Your task to perform on an android device: Open the stopwatch Image 0: 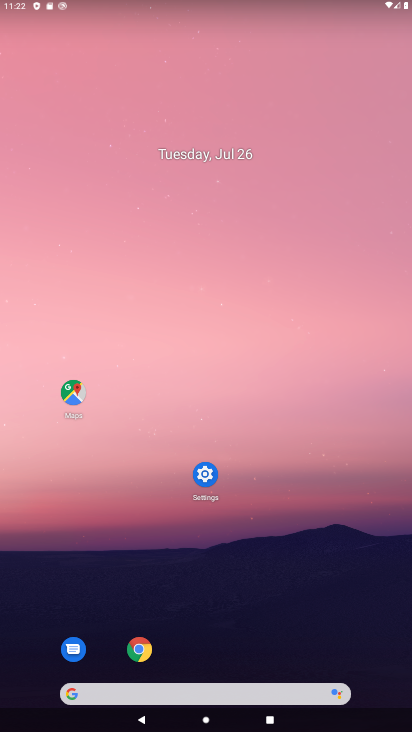
Step 0: drag from (254, 373) to (282, 46)
Your task to perform on an android device: Open the stopwatch Image 1: 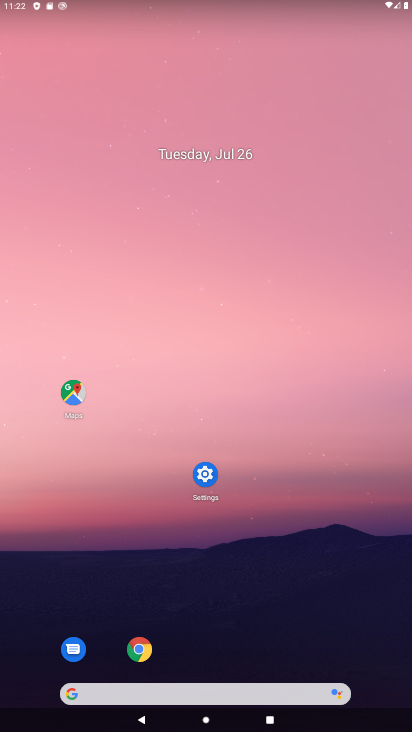
Step 1: drag from (227, 513) to (299, 19)
Your task to perform on an android device: Open the stopwatch Image 2: 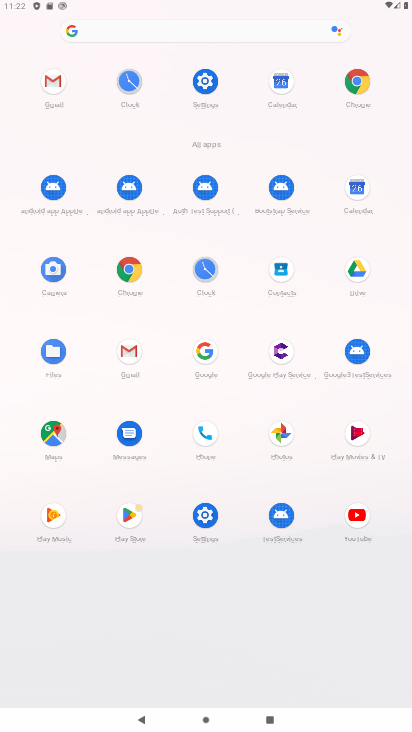
Step 2: click (211, 269)
Your task to perform on an android device: Open the stopwatch Image 3: 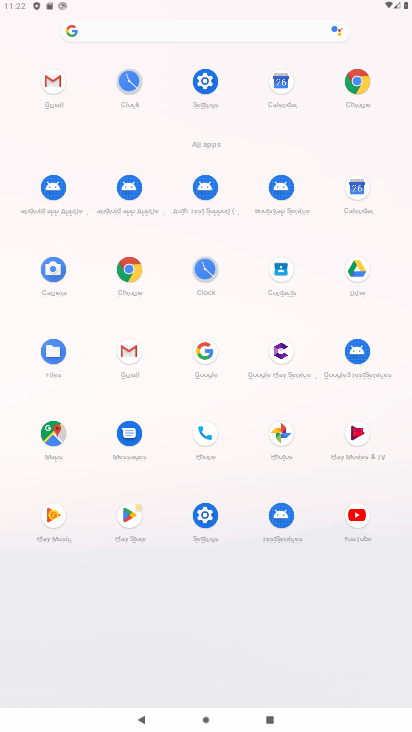
Step 3: click (212, 268)
Your task to perform on an android device: Open the stopwatch Image 4: 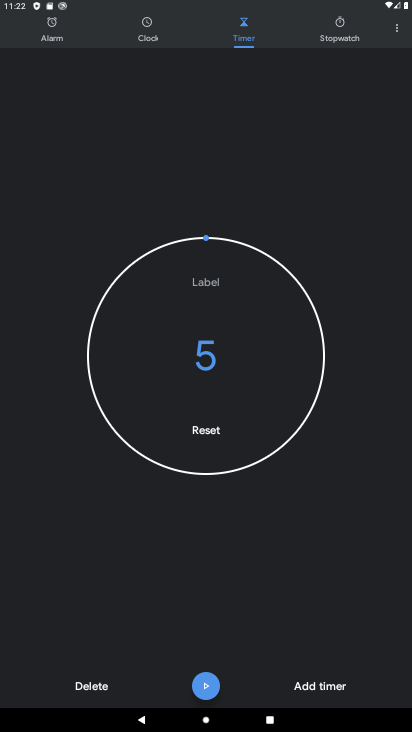
Step 4: click (349, 30)
Your task to perform on an android device: Open the stopwatch Image 5: 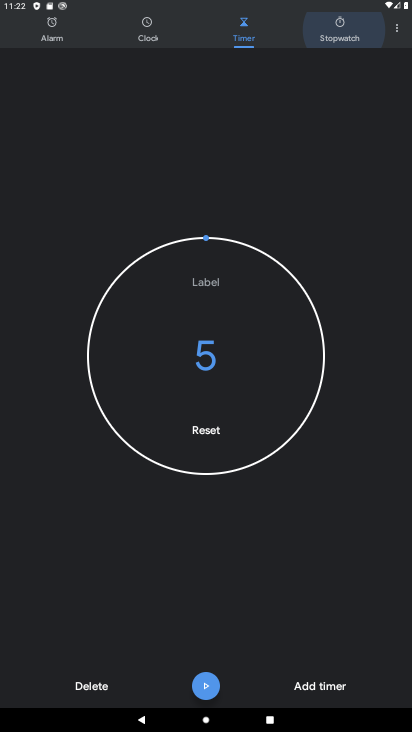
Step 5: click (348, 29)
Your task to perform on an android device: Open the stopwatch Image 6: 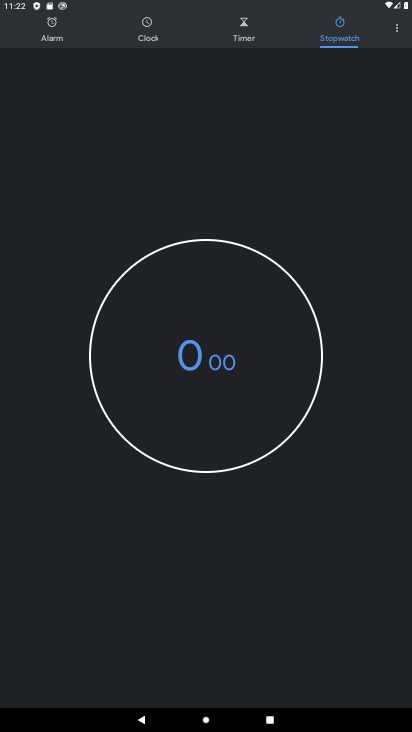
Step 6: click (345, 30)
Your task to perform on an android device: Open the stopwatch Image 7: 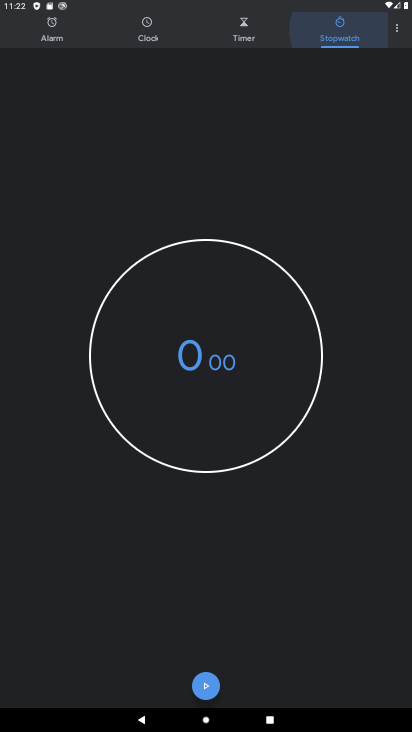
Step 7: click (338, 37)
Your task to perform on an android device: Open the stopwatch Image 8: 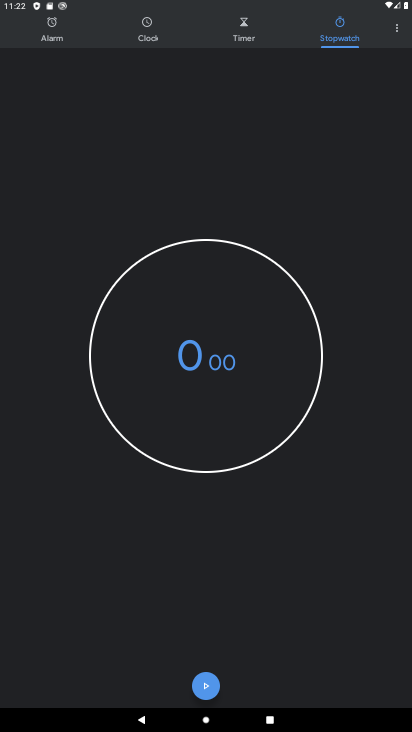
Step 8: click (198, 699)
Your task to perform on an android device: Open the stopwatch Image 9: 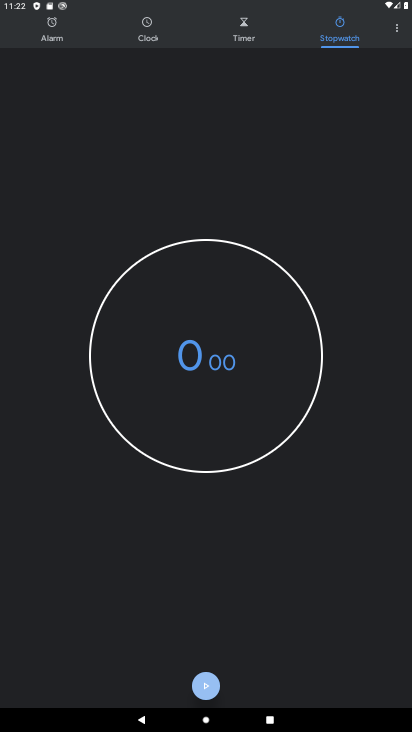
Step 9: click (199, 691)
Your task to perform on an android device: Open the stopwatch Image 10: 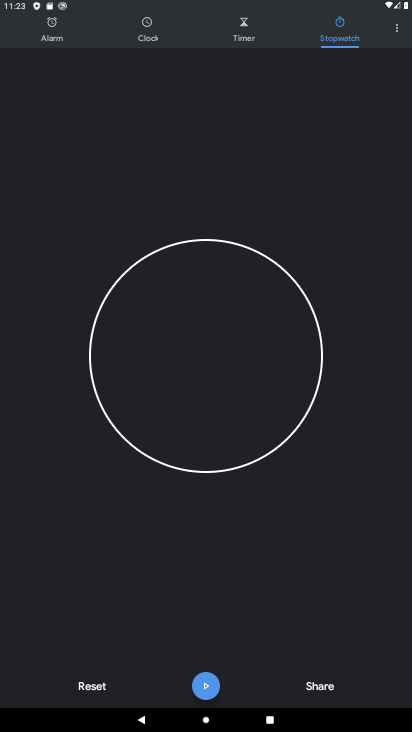
Step 10: click (202, 676)
Your task to perform on an android device: Open the stopwatch Image 11: 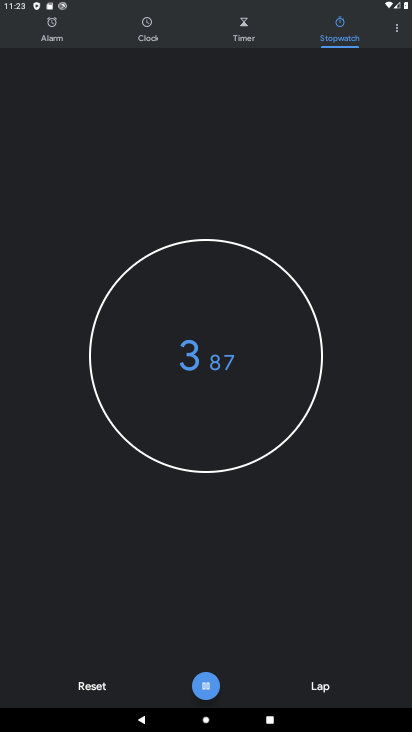
Step 11: click (201, 688)
Your task to perform on an android device: Open the stopwatch Image 12: 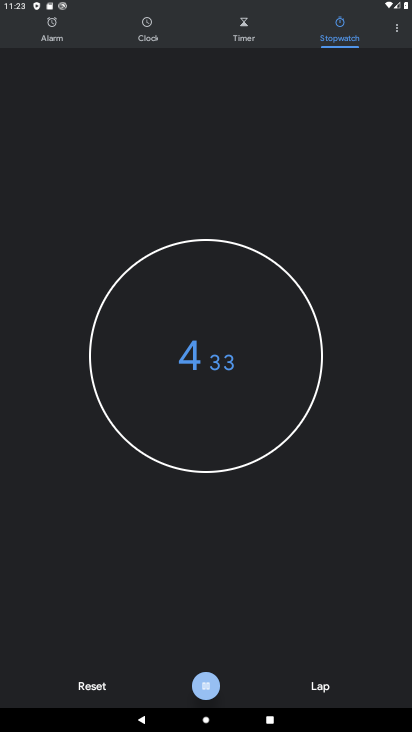
Step 12: click (203, 684)
Your task to perform on an android device: Open the stopwatch Image 13: 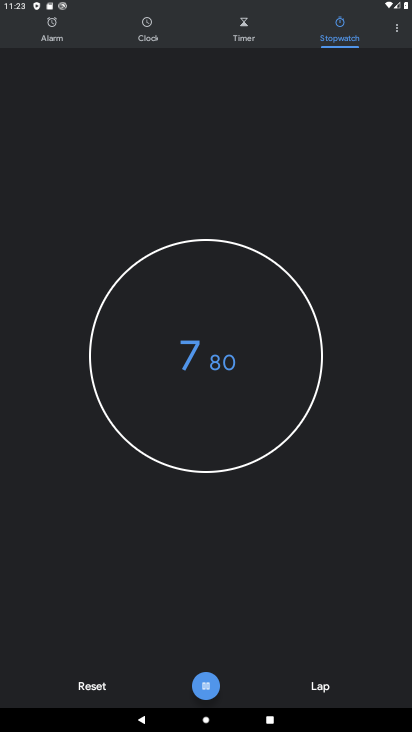
Step 13: click (210, 691)
Your task to perform on an android device: Open the stopwatch Image 14: 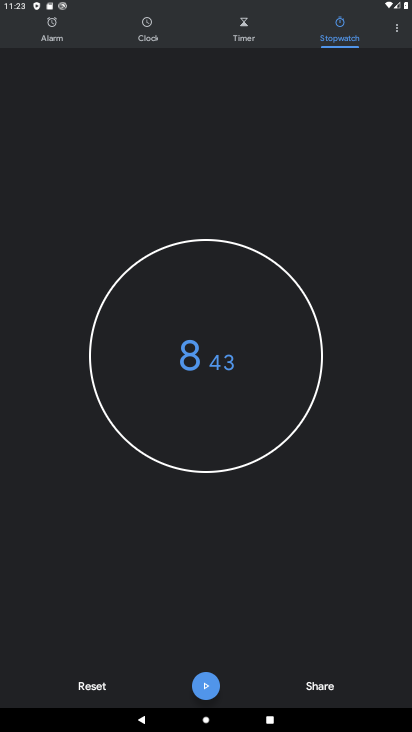
Step 14: task complete